Your task to perform on an android device: Open wifi settings Image 0: 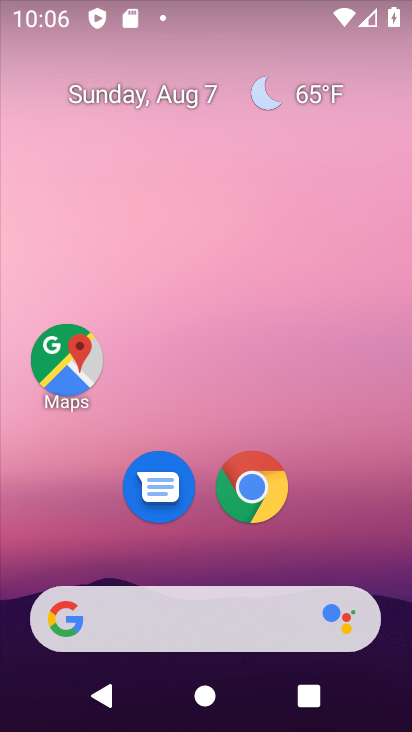
Step 0: drag from (376, 521) to (330, 113)
Your task to perform on an android device: Open wifi settings Image 1: 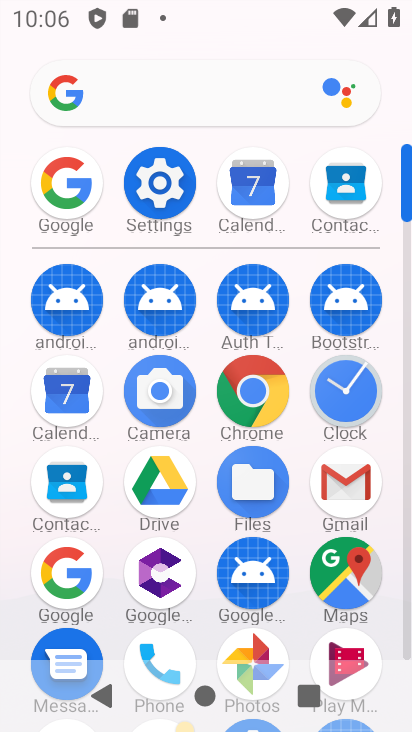
Step 1: click (162, 166)
Your task to perform on an android device: Open wifi settings Image 2: 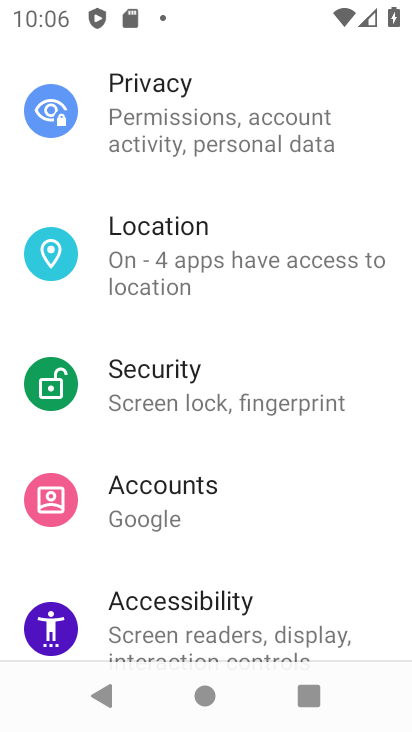
Step 2: drag from (345, 83) to (360, 543)
Your task to perform on an android device: Open wifi settings Image 3: 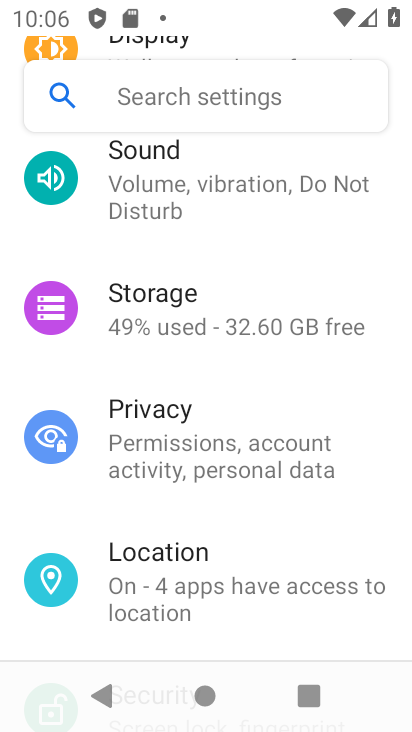
Step 3: drag from (322, 244) to (312, 649)
Your task to perform on an android device: Open wifi settings Image 4: 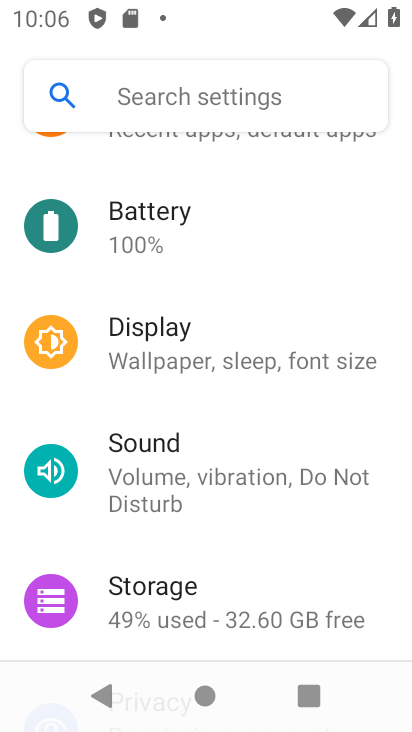
Step 4: drag from (297, 212) to (302, 567)
Your task to perform on an android device: Open wifi settings Image 5: 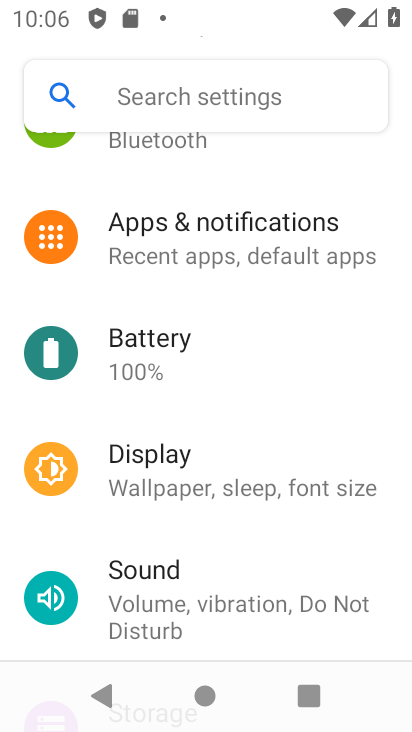
Step 5: drag from (337, 190) to (349, 529)
Your task to perform on an android device: Open wifi settings Image 6: 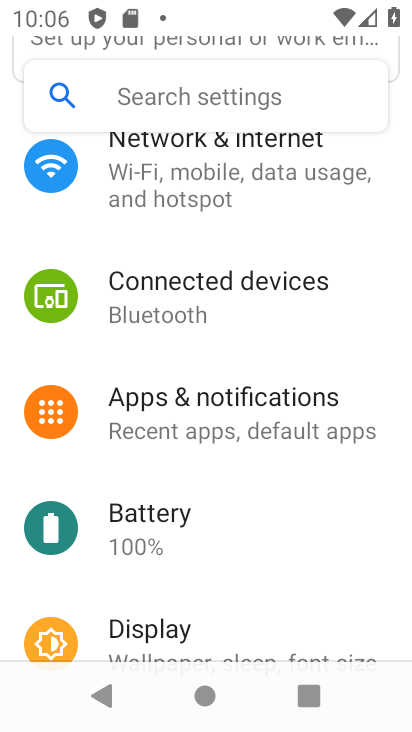
Step 6: click (233, 166)
Your task to perform on an android device: Open wifi settings Image 7: 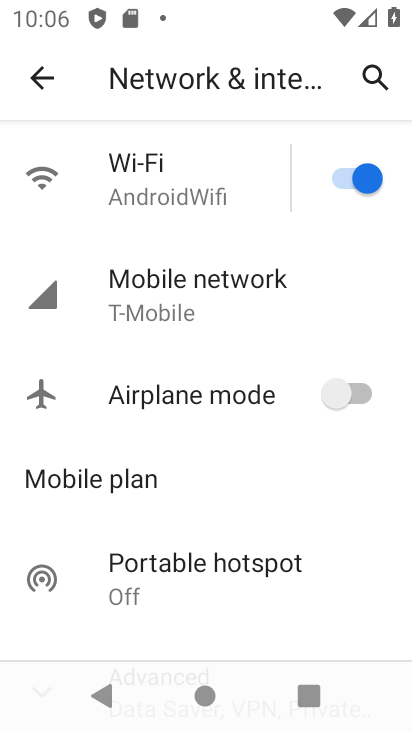
Step 7: click (244, 185)
Your task to perform on an android device: Open wifi settings Image 8: 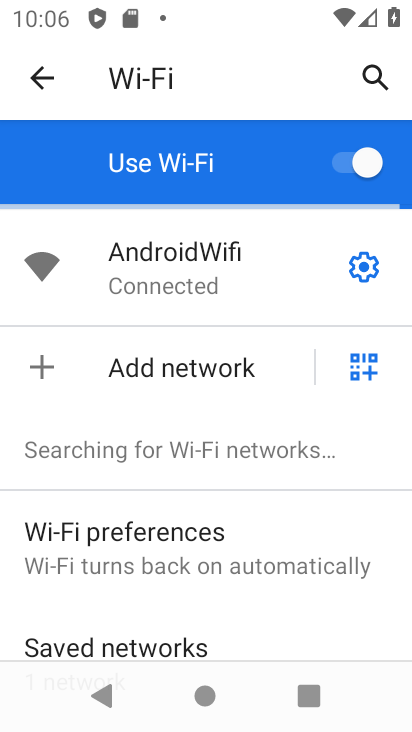
Step 8: click (364, 262)
Your task to perform on an android device: Open wifi settings Image 9: 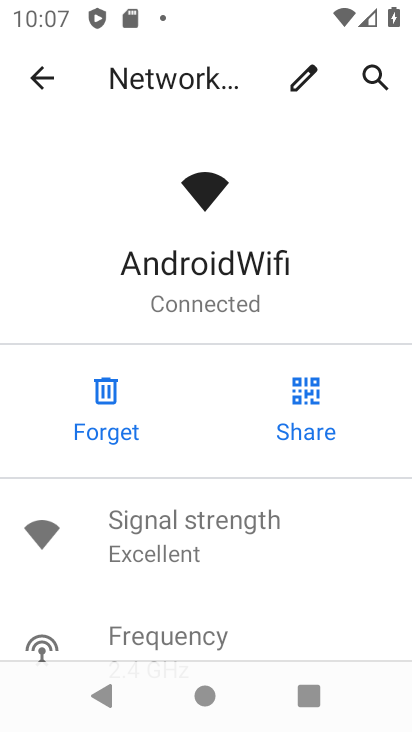
Step 9: task complete